Your task to perform on an android device: turn pop-ups on in chrome Image 0: 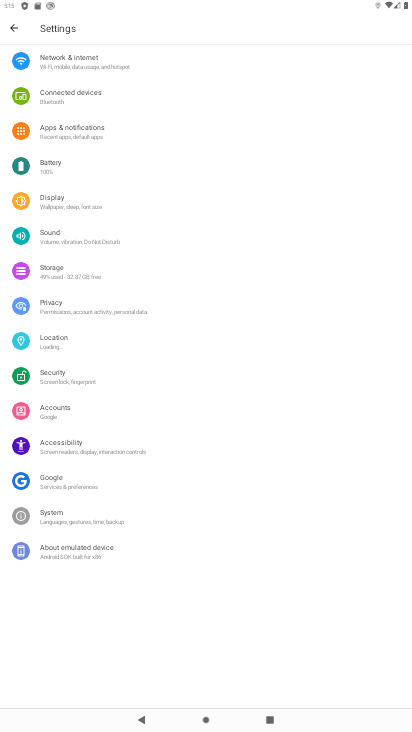
Step 0: press home button
Your task to perform on an android device: turn pop-ups on in chrome Image 1: 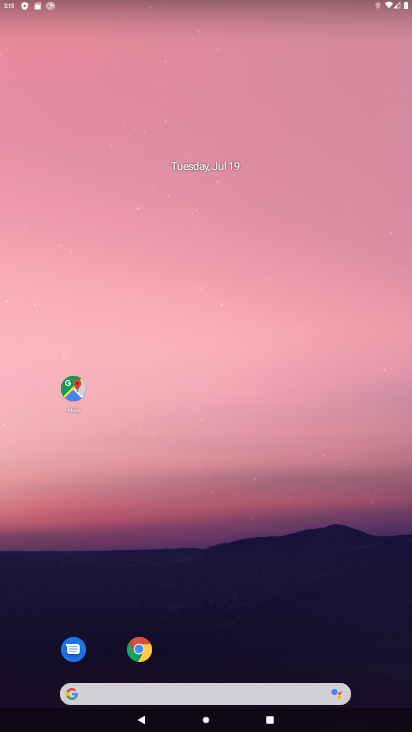
Step 1: drag from (289, 609) to (278, 123)
Your task to perform on an android device: turn pop-ups on in chrome Image 2: 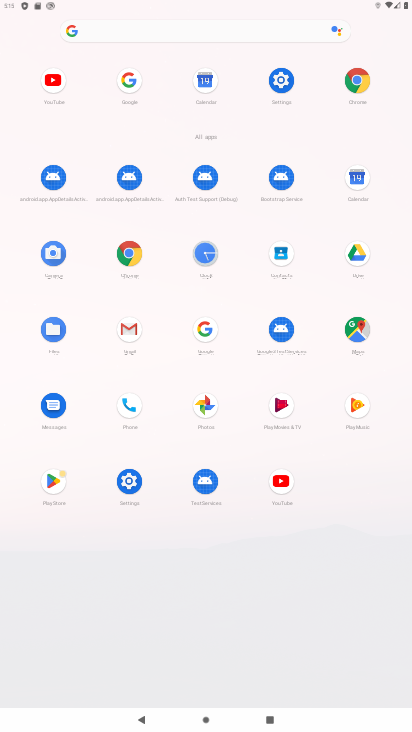
Step 2: click (128, 251)
Your task to perform on an android device: turn pop-ups on in chrome Image 3: 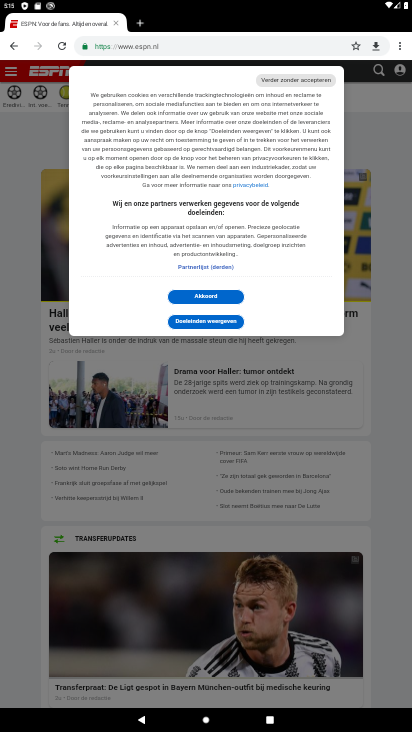
Step 3: drag from (397, 43) to (308, 334)
Your task to perform on an android device: turn pop-ups on in chrome Image 4: 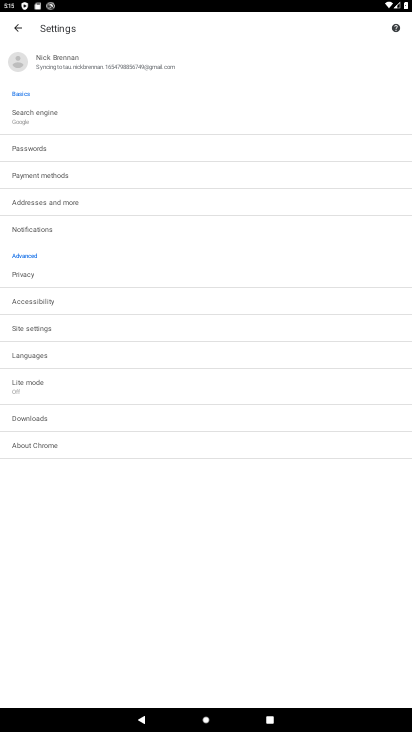
Step 4: click (57, 330)
Your task to perform on an android device: turn pop-ups on in chrome Image 5: 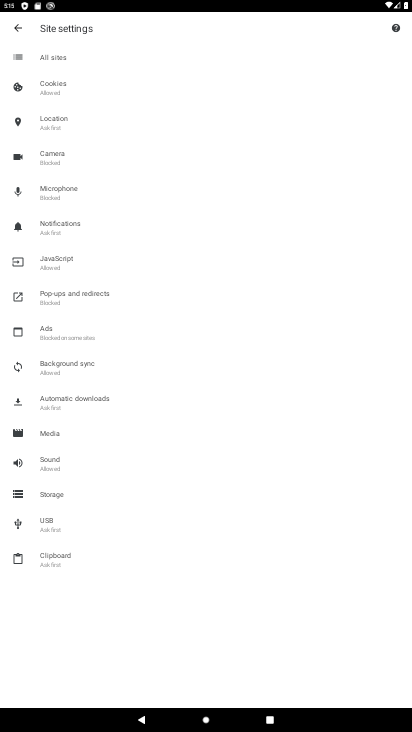
Step 5: click (99, 285)
Your task to perform on an android device: turn pop-ups on in chrome Image 6: 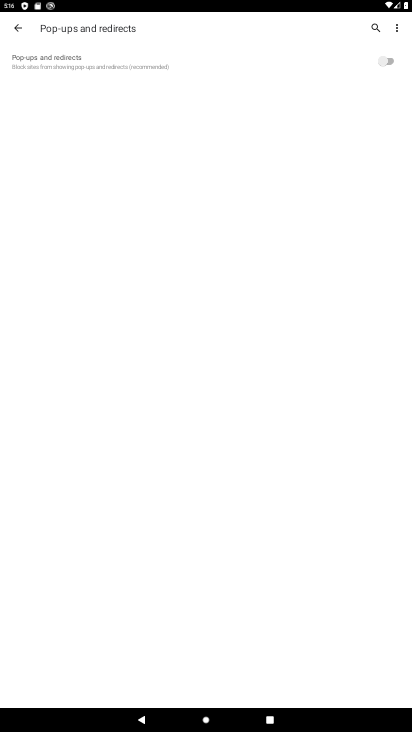
Step 6: click (384, 63)
Your task to perform on an android device: turn pop-ups on in chrome Image 7: 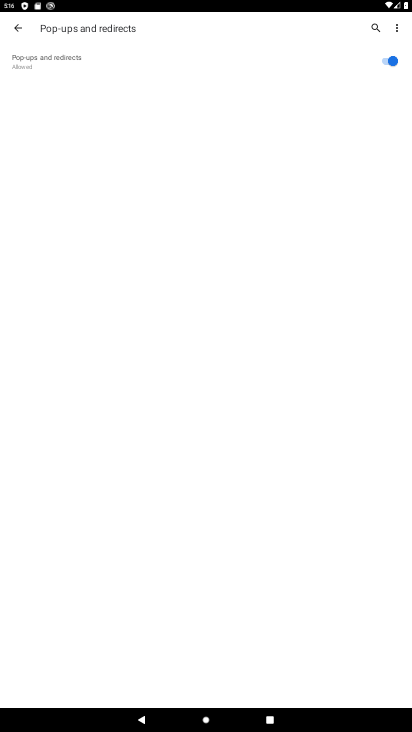
Step 7: task complete